Your task to perform on an android device: Open Chrome and go to settings Image 0: 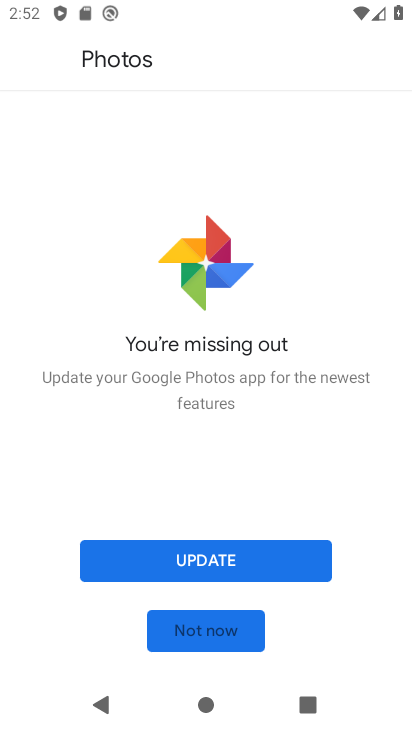
Step 0: press home button
Your task to perform on an android device: Open Chrome and go to settings Image 1: 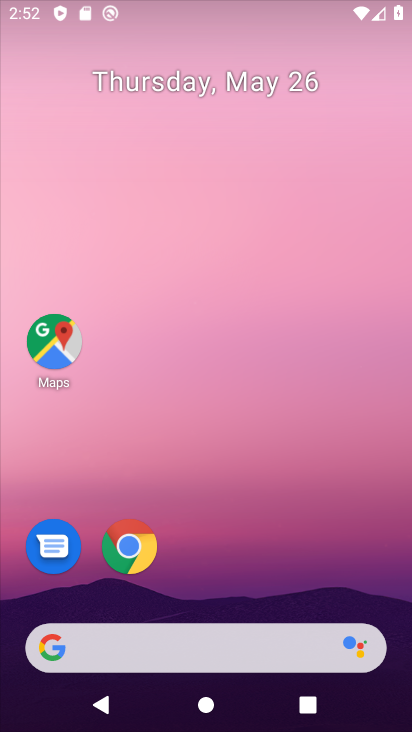
Step 1: click (132, 560)
Your task to perform on an android device: Open Chrome and go to settings Image 2: 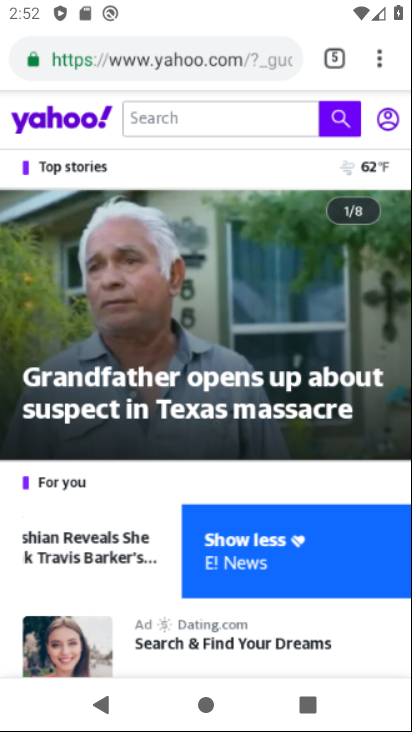
Step 2: click (381, 61)
Your task to perform on an android device: Open Chrome and go to settings Image 3: 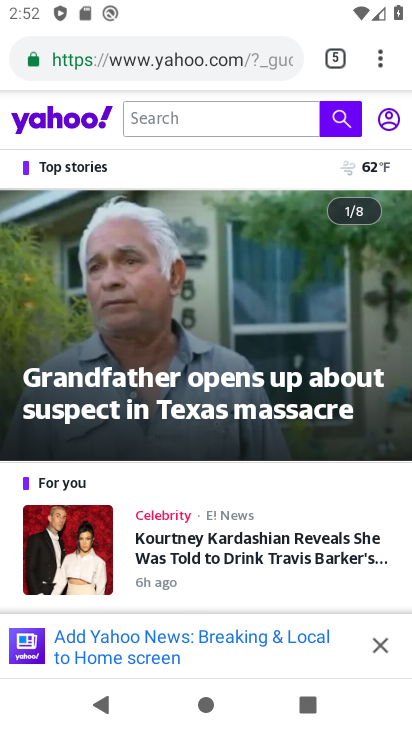
Step 3: click (383, 52)
Your task to perform on an android device: Open Chrome and go to settings Image 4: 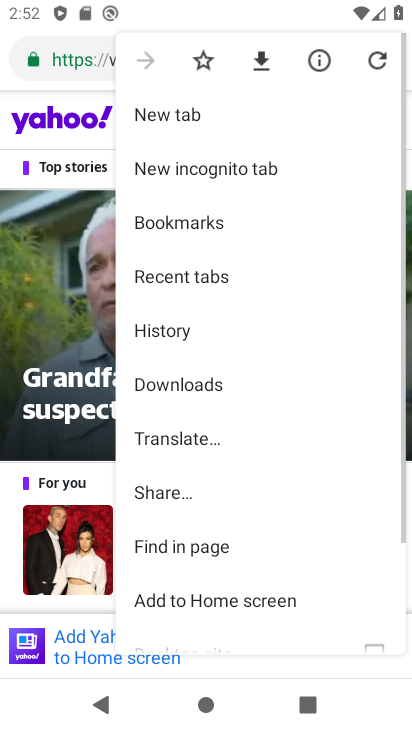
Step 4: drag from (258, 520) to (259, 180)
Your task to perform on an android device: Open Chrome and go to settings Image 5: 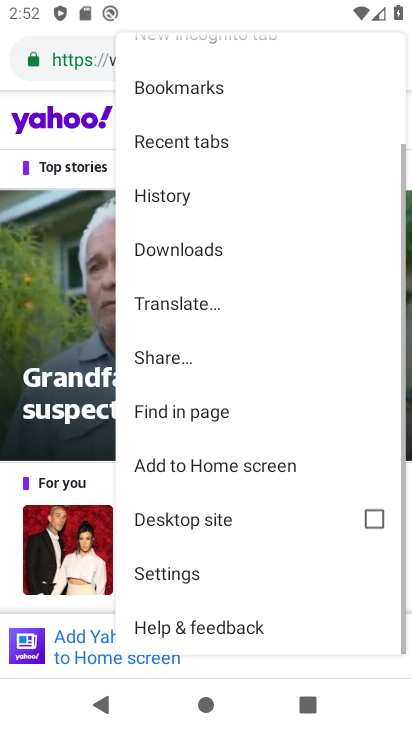
Step 5: click (188, 563)
Your task to perform on an android device: Open Chrome and go to settings Image 6: 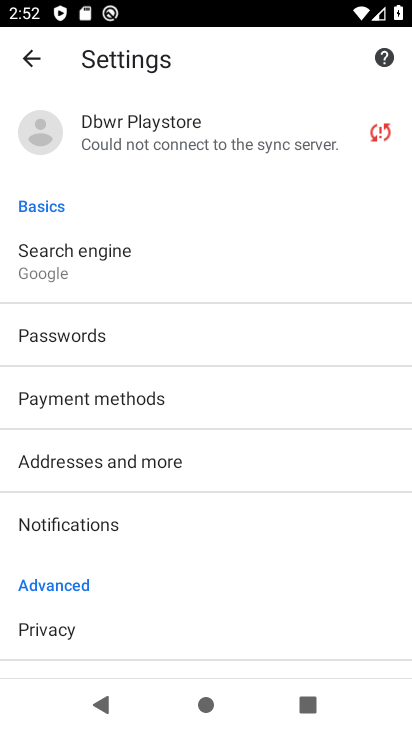
Step 6: task complete